Your task to perform on an android device: toggle notification dots Image 0: 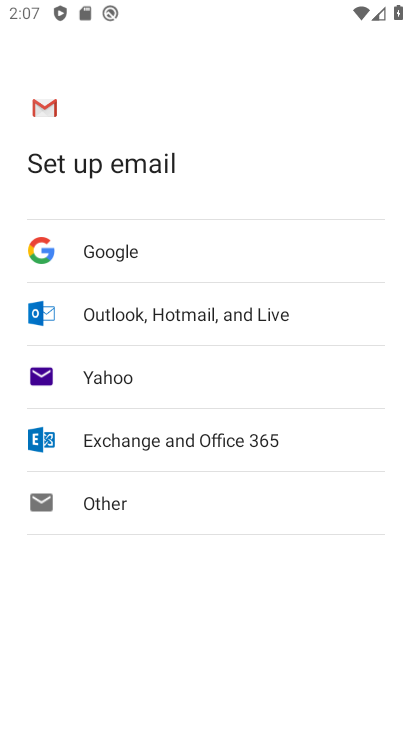
Step 0: press home button
Your task to perform on an android device: toggle notification dots Image 1: 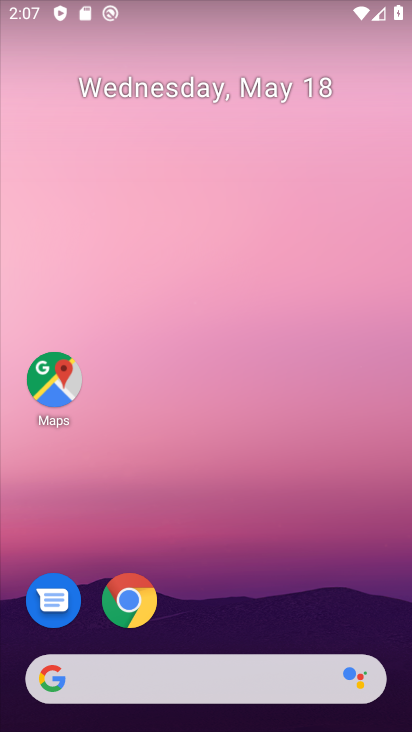
Step 1: drag from (238, 681) to (199, 137)
Your task to perform on an android device: toggle notification dots Image 2: 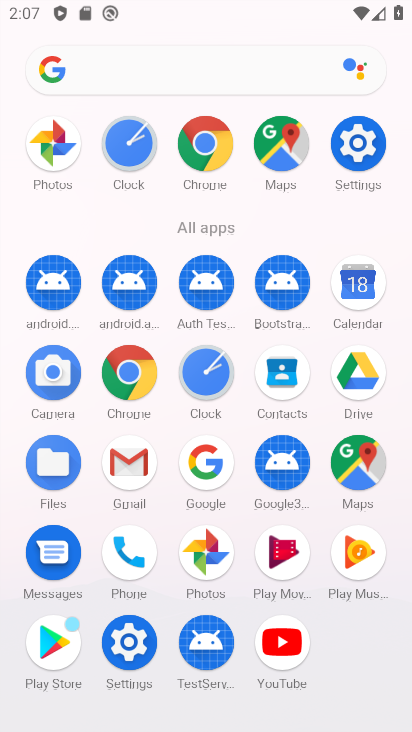
Step 2: click (356, 148)
Your task to perform on an android device: toggle notification dots Image 3: 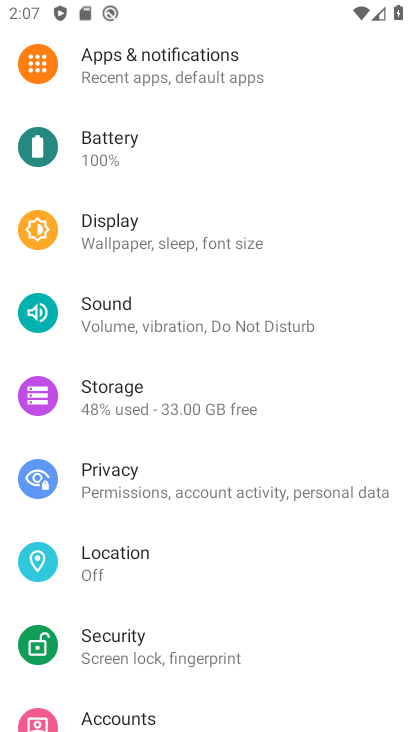
Step 3: click (200, 66)
Your task to perform on an android device: toggle notification dots Image 4: 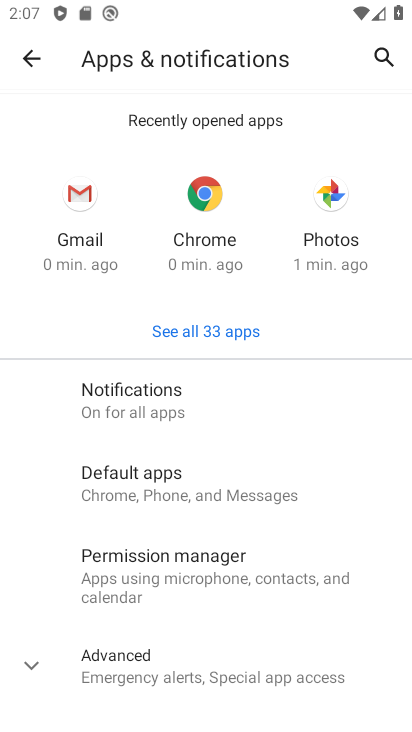
Step 4: click (178, 393)
Your task to perform on an android device: toggle notification dots Image 5: 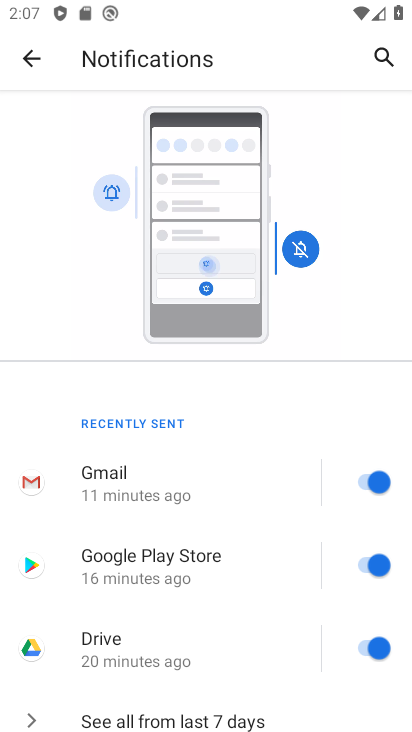
Step 5: drag from (217, 638) to (352, 145)
Your task to perform on an android device: toggle notification dots Image 6: 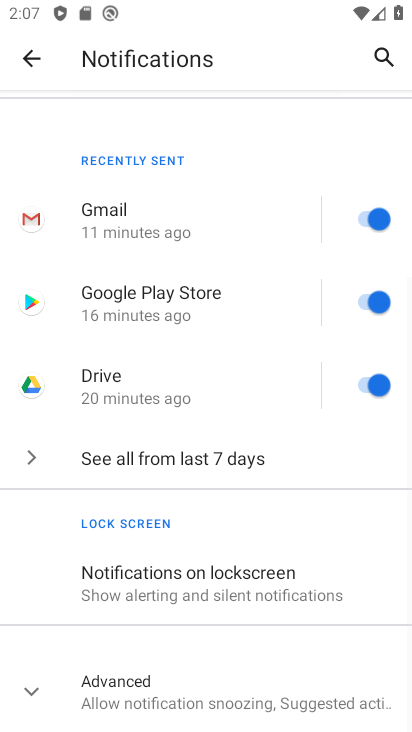
Step 6: click (183, 682)
Your task to perform on an android device: toggle notification dots Image 7: 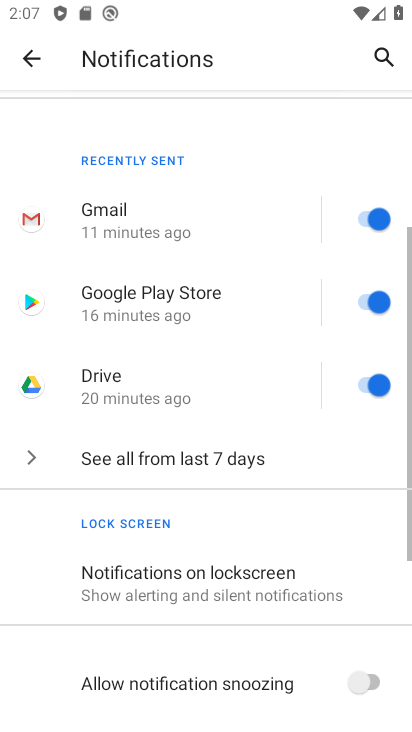
Step 7: drag from (220, 654) to (364, 143)
Your task to perform on an android device: toggle notification dots Image 8: 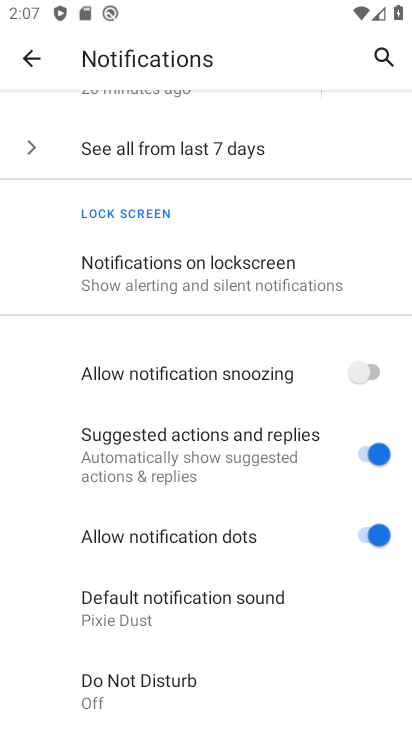
Step 8: click (360, 530)
Your task to perform on an android device: toggle notification dots Image 9: 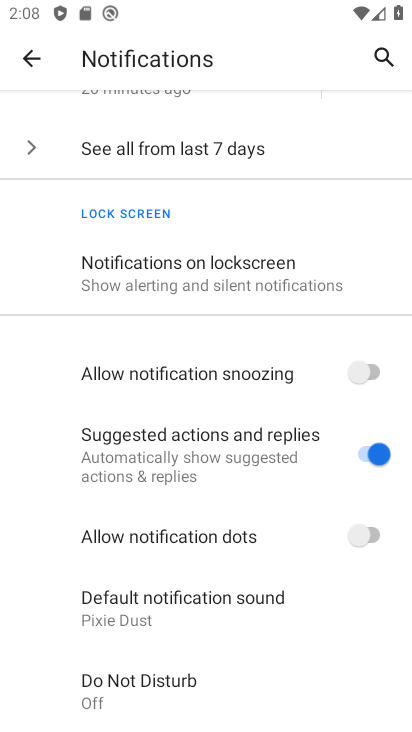
Step 9: task complete